Your task to perform on an android device: Go to eBay Image 0: 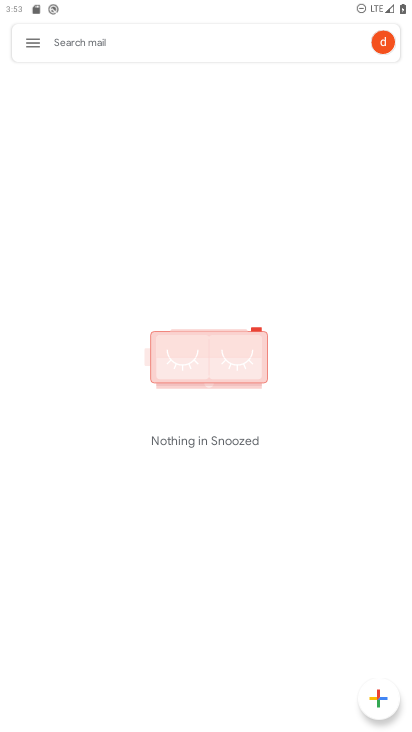
Step 0: press home button
Your task to perform on an android device: Go to eBay Image 1: 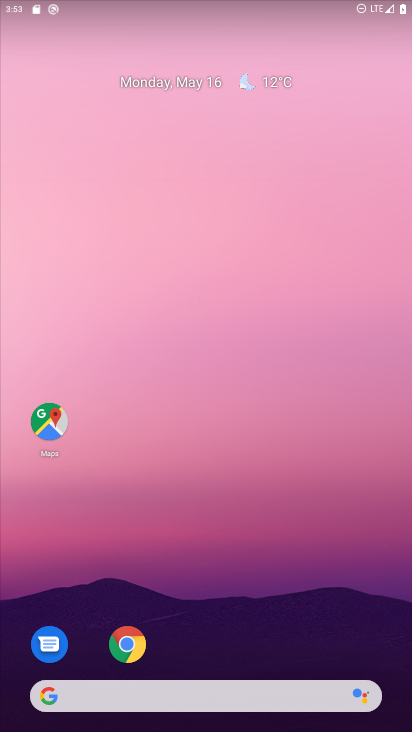
Step 1: click (136, 653)
Your task to perform on an android device: Go to eBay Image 2: 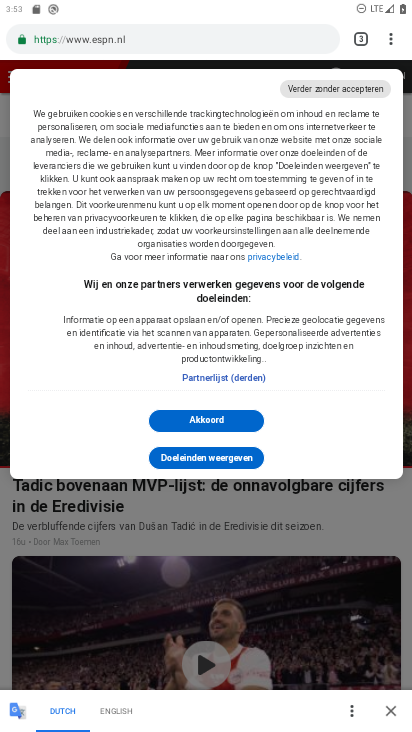
Step 2: click (359, 34)
Your task to perform on an android device: Go to eBay Image 3: 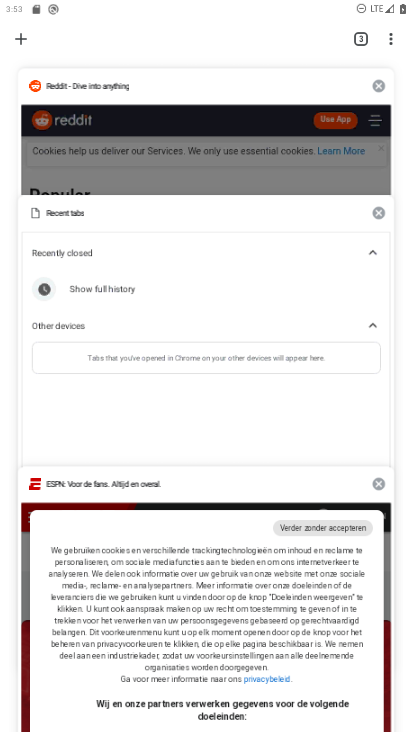
Step 3: click (18, 35)
Your task to perform on an android device: Go to eBay Image 4: 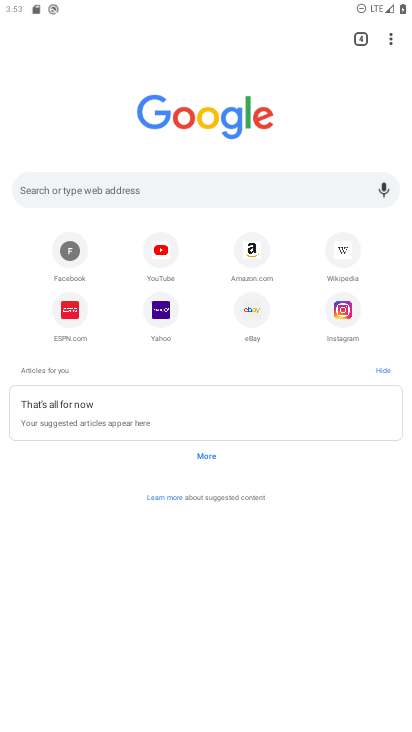
Step 4: click (253, 308)
Your task to perform on an android device: Go to eBay Image 5: 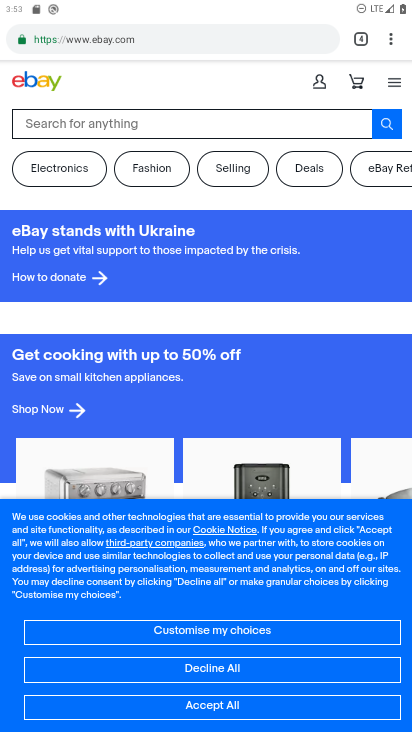
Step 5: task complete